Your task to perform on an android device: View the shopping cart on walmart. Add bose quietcomfort 35 to the cart on walmart, then select checkout. Image 0: 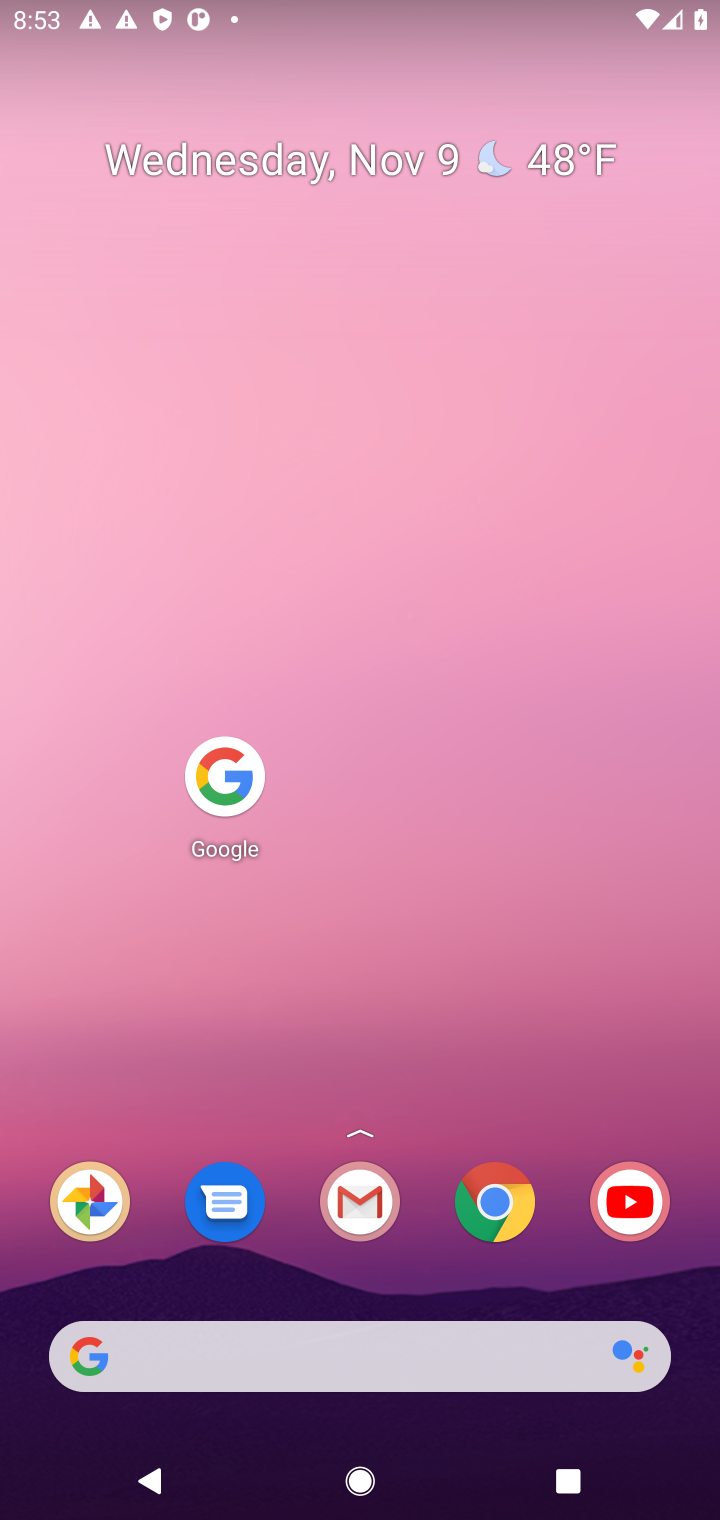
Step 0: click (229, 775)
Your task to perform on an android device: View the shopping cart on walmart. Add bose quietcomfort 35 to the cart on walmart, then select checkout. Image 1: 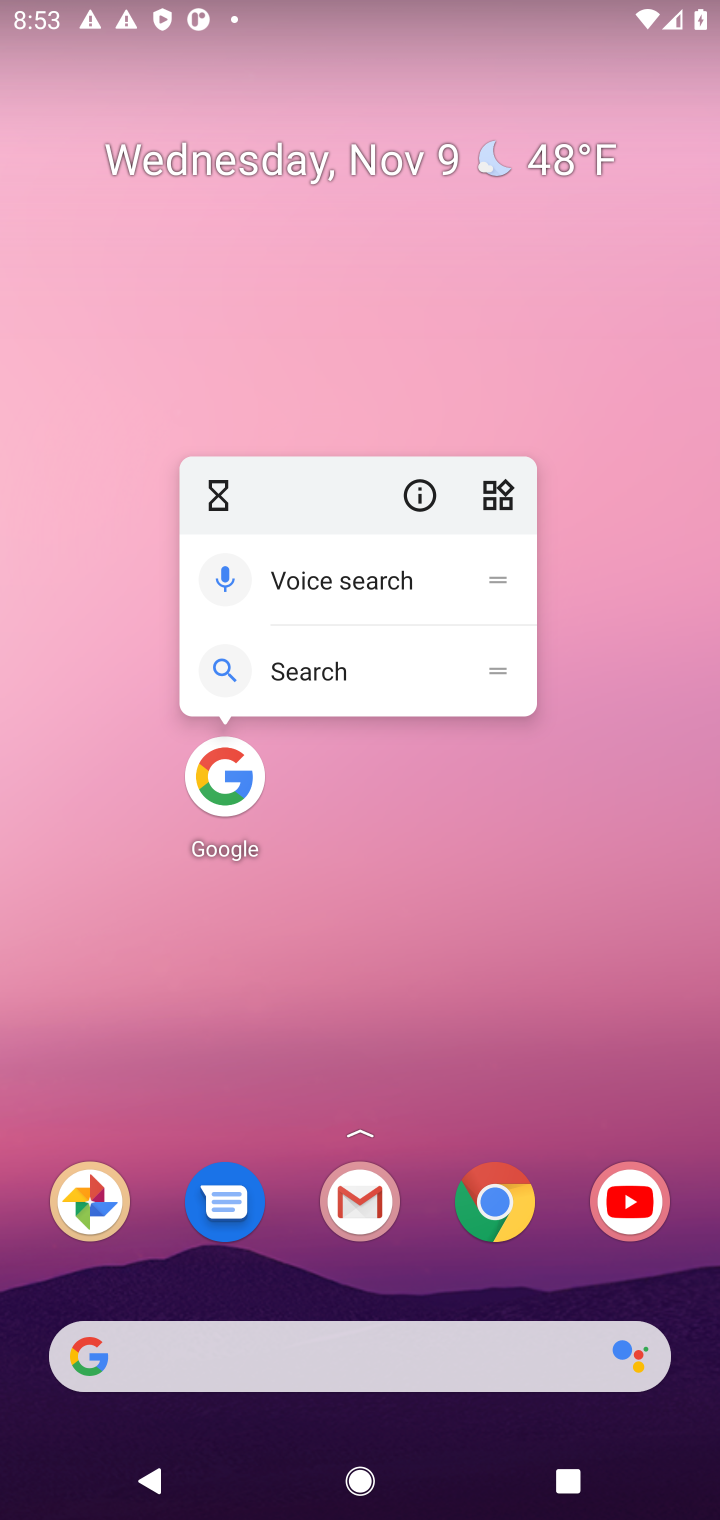
Step 1: click (231, 771)
Your task to perform on an android device: View the shopping cart on walmart. Add bose quietcomfort 35 to the cart on walmart, then select checkout. Image 2: 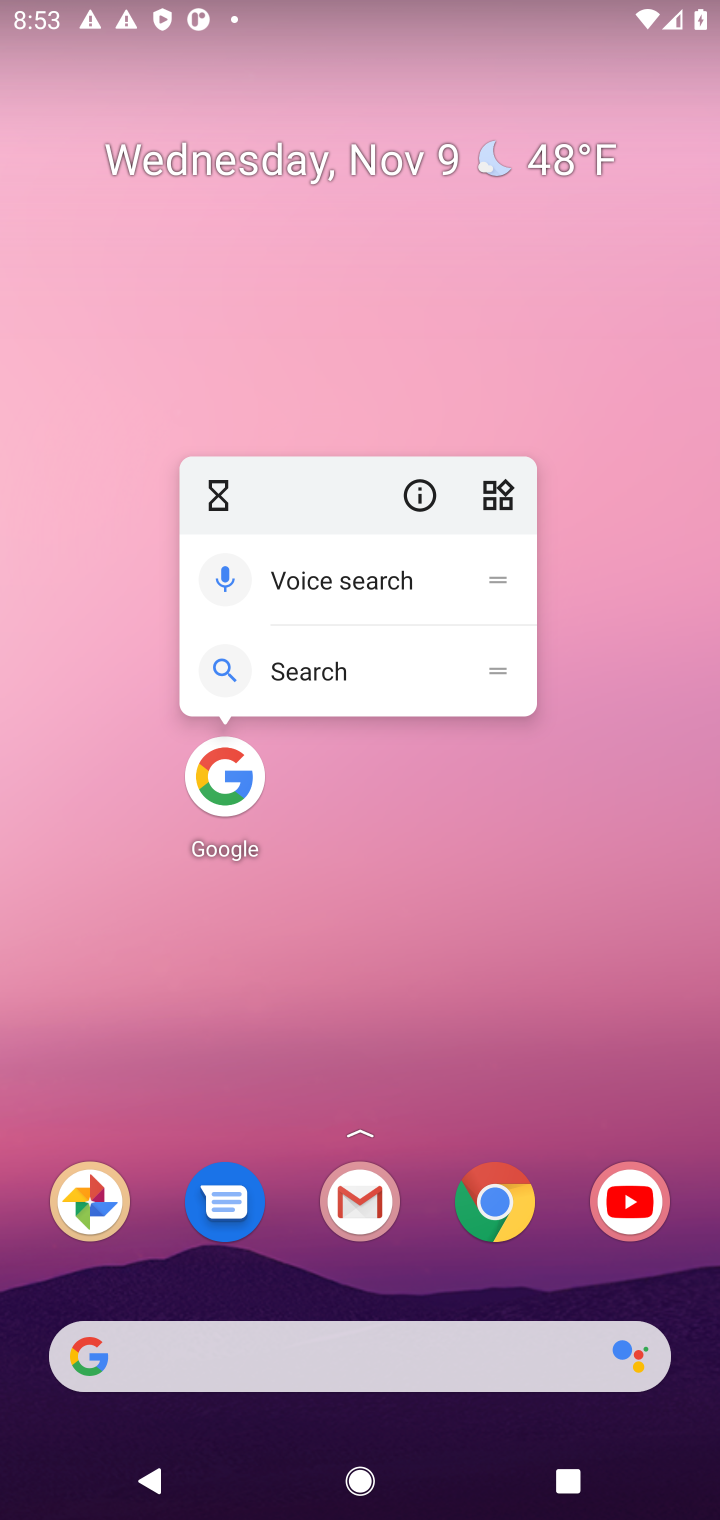
Step 2: click (225, 773)
Your task to perform on an android device: View the shopping cart on walmart. Add bose quietcomfort 35 to the cart on walmart, then select checkout. Image 3: 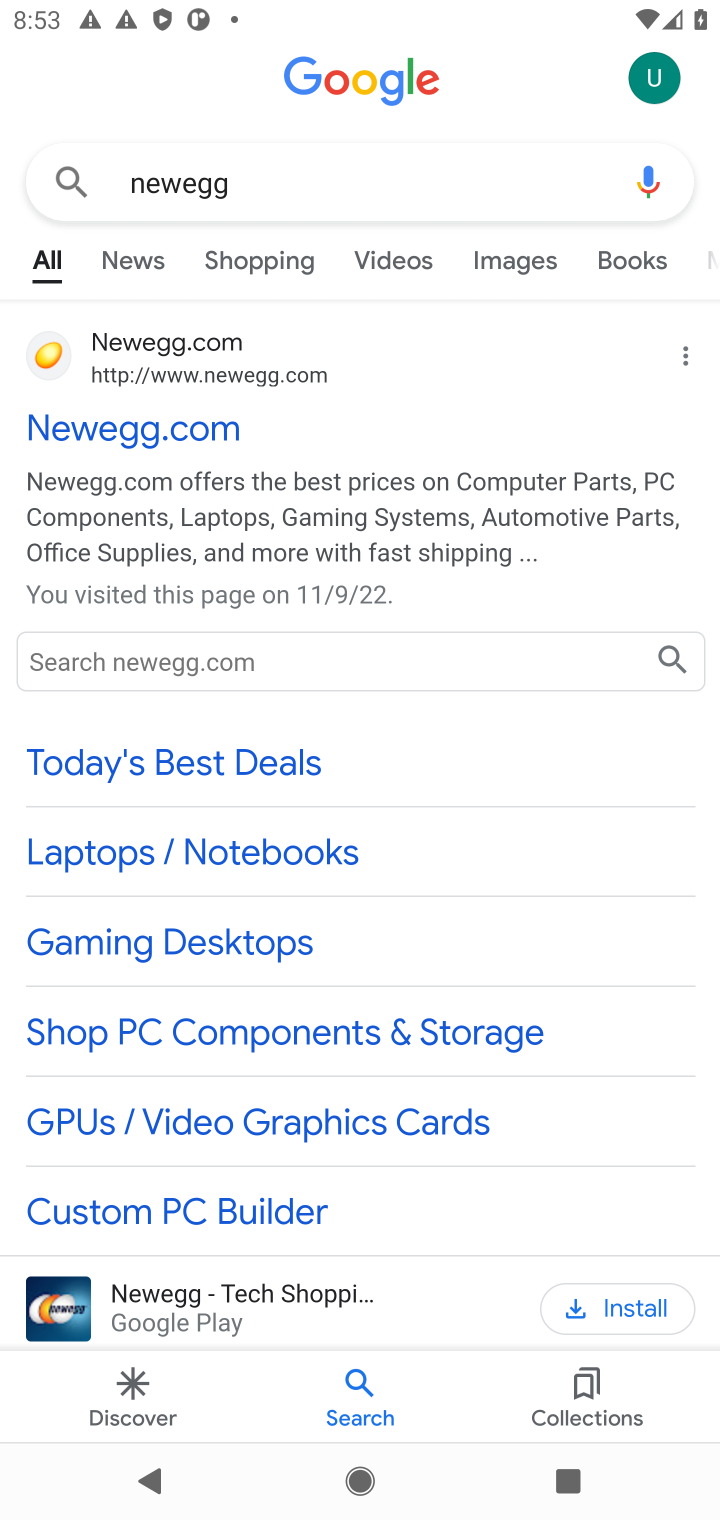
Step 3: click (325, 175)
Your task to perform on an android device: View the shopping cart on walmart. Add bose quietcomfort 35 to the cart on walmart, then select checkout. Image 4: 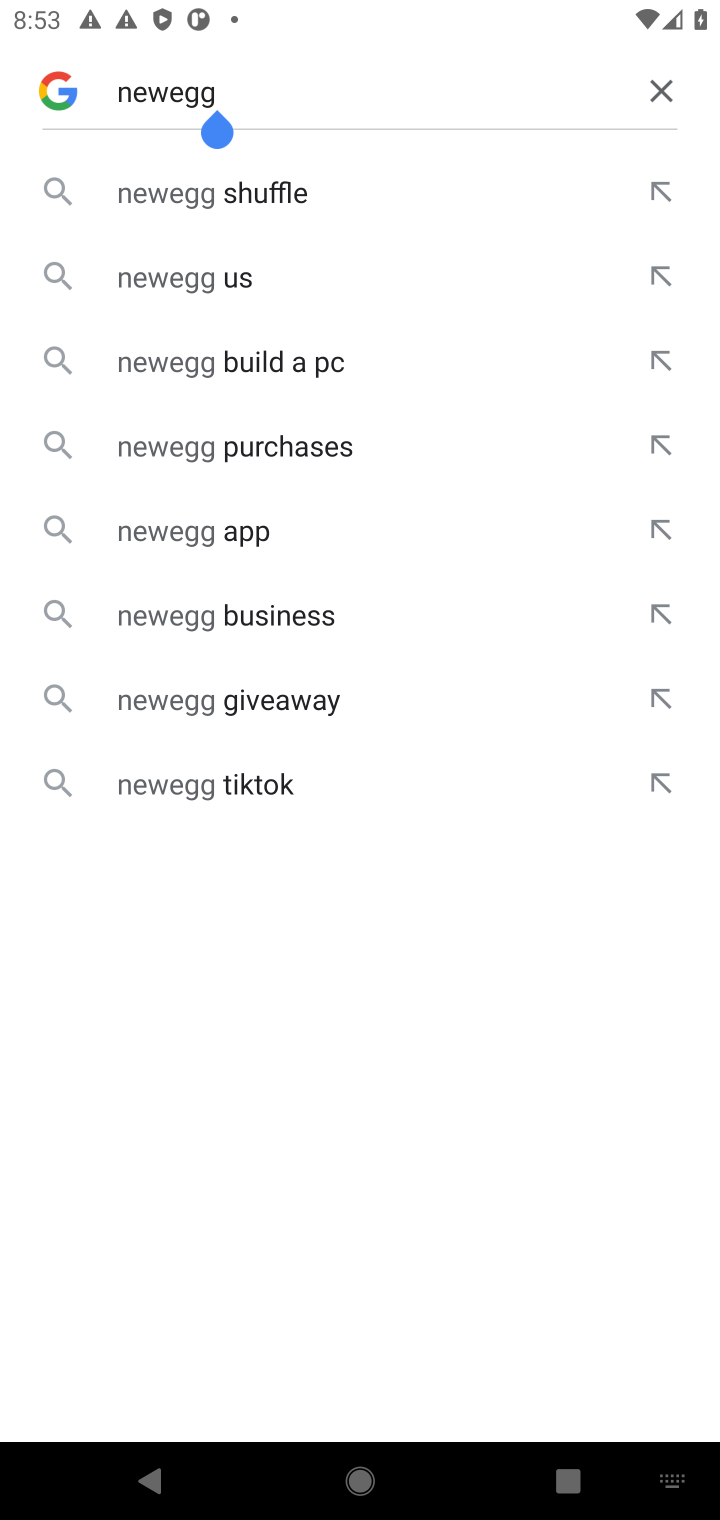
Step 4: click (656, 83)
Your task to perform on an android device: View the shopping cart on walmart. Add bose quietcomfort 35 to the cart on walmart, then select checkout. Image 5: 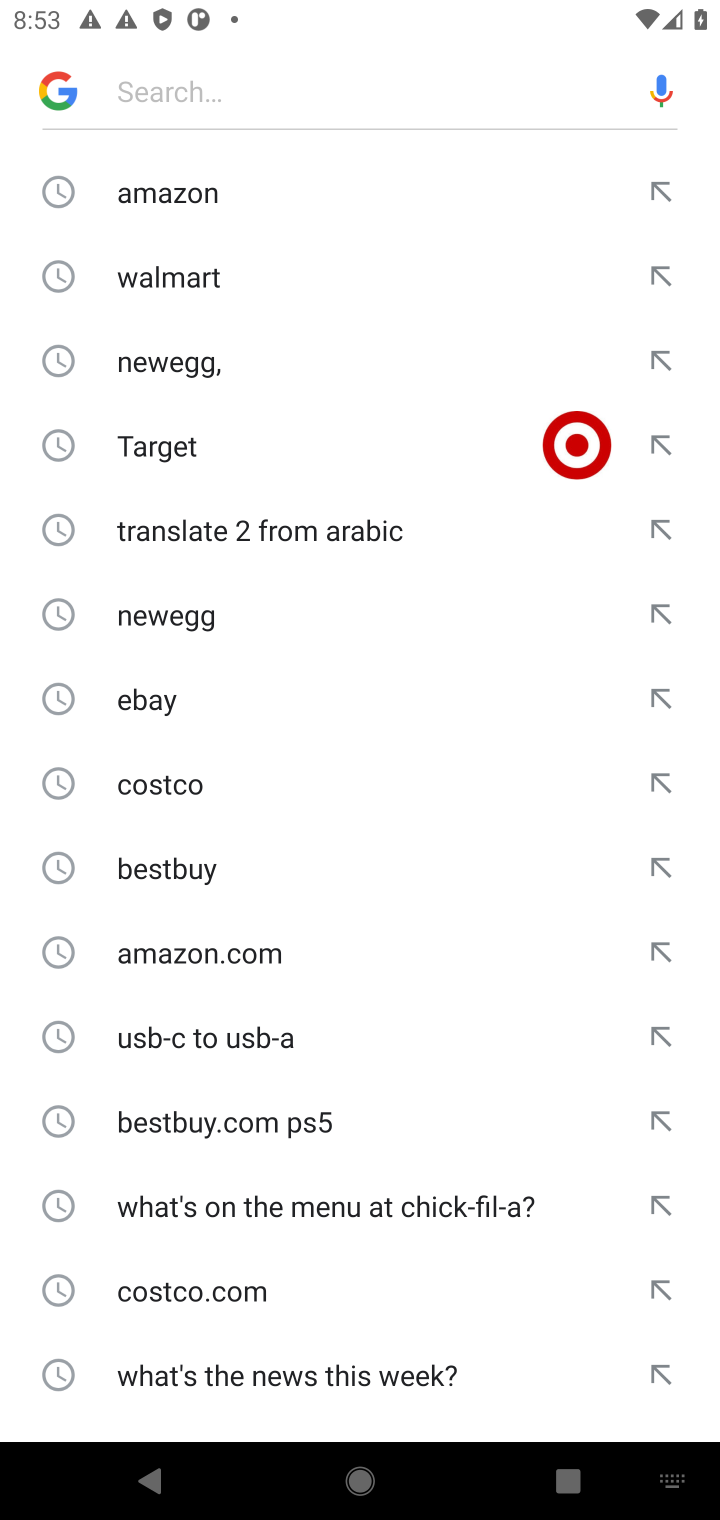
Step 5: click (155, 278)
Your task to perform on an android device: View the shopping cart on walmart. Add bose quietcomfort 35 to the cart on walmart, then select checkout. Image 6: 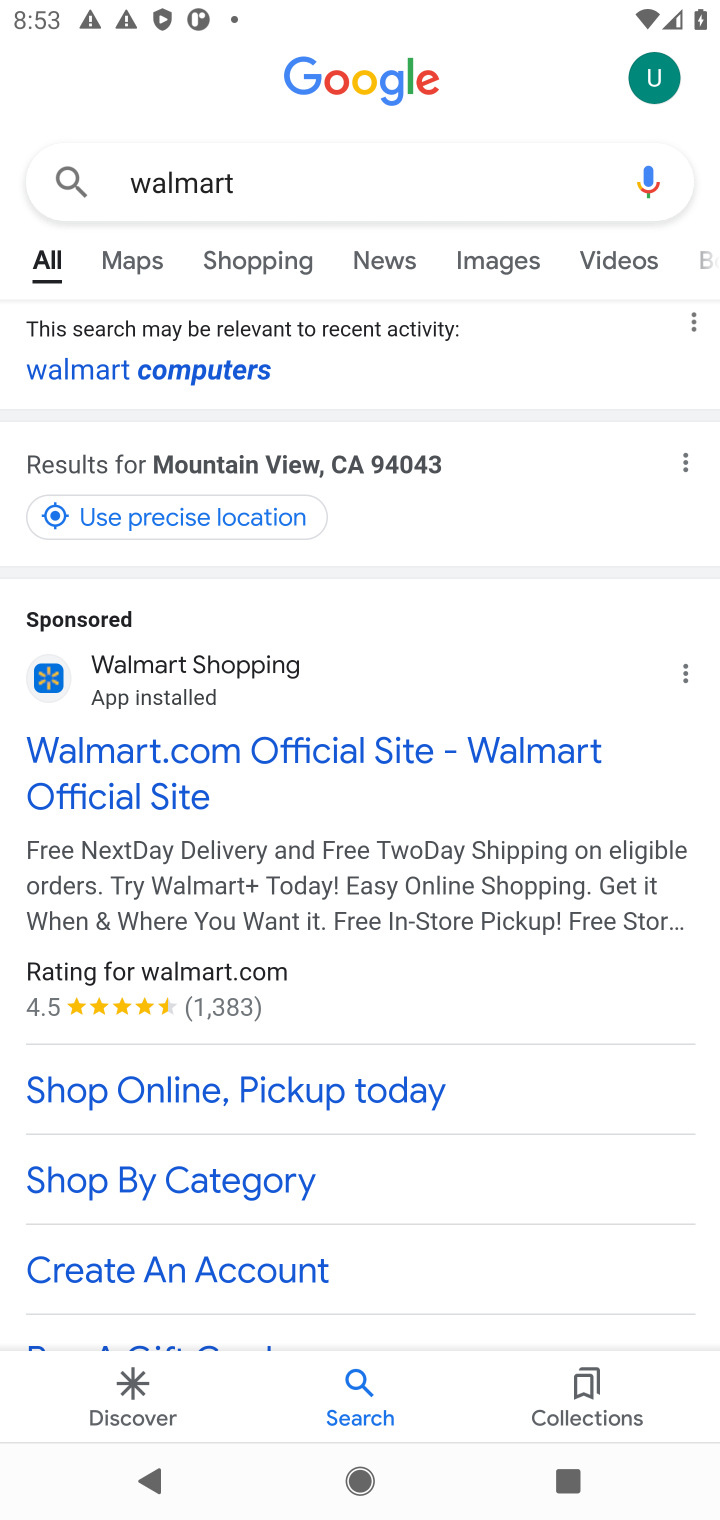
Step 6: drag from (229, 1227) to (493, 450)
Your task to perform on an android device: View the shopping cart on walmart. Add bose quietcomfort 35 to the cart on walmart, then select checkout. Image 7: 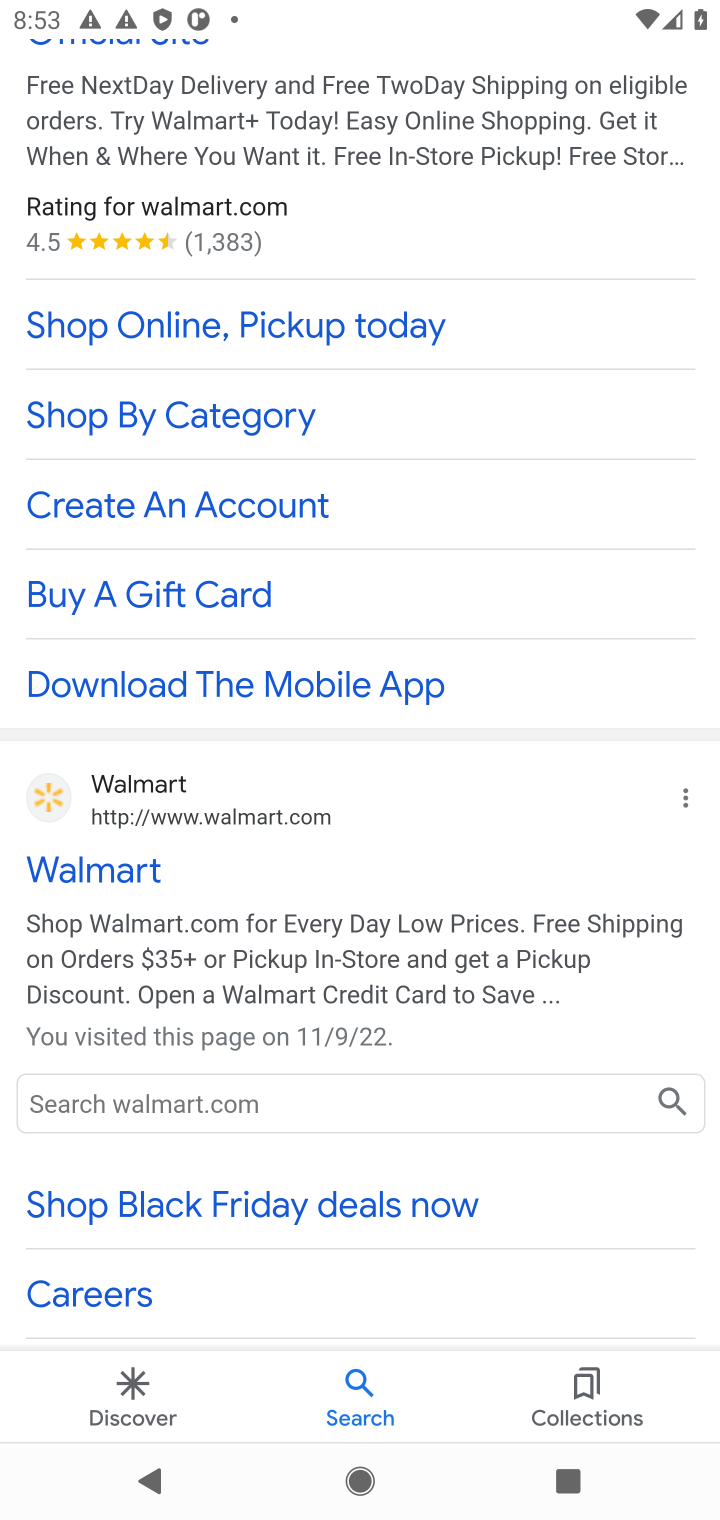
Step 7: click (114, 867)
Your task to perform on an android device: View the shopping cart on walmart. Add bose quietcomfort 35 to the cart on walmart, then select checkout. Image 8: 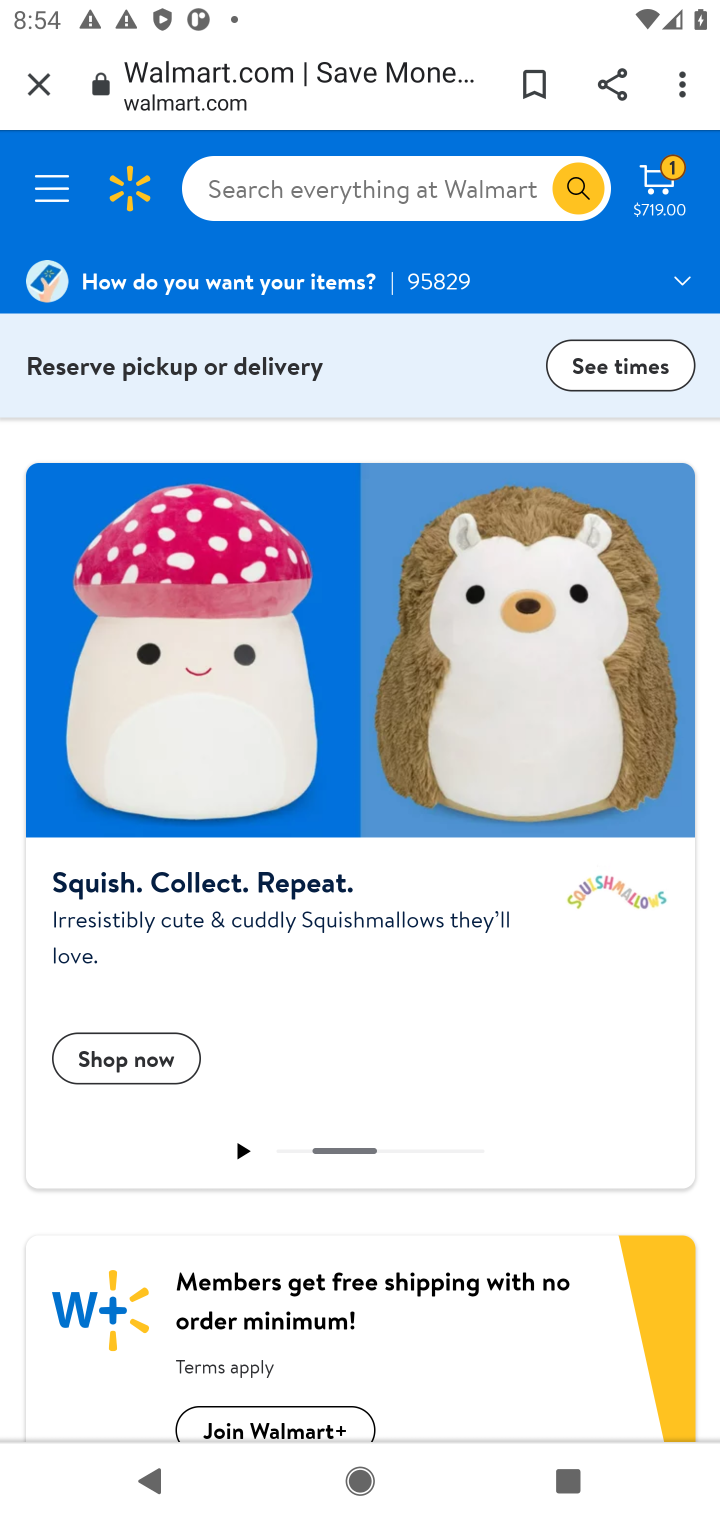
Step 8: click (330, 187)
Your task to perform on an android device: View the shopping cart on walmart. Add bose quietcomfort 35 to the cart on walmart, then select checkout. Image 9: 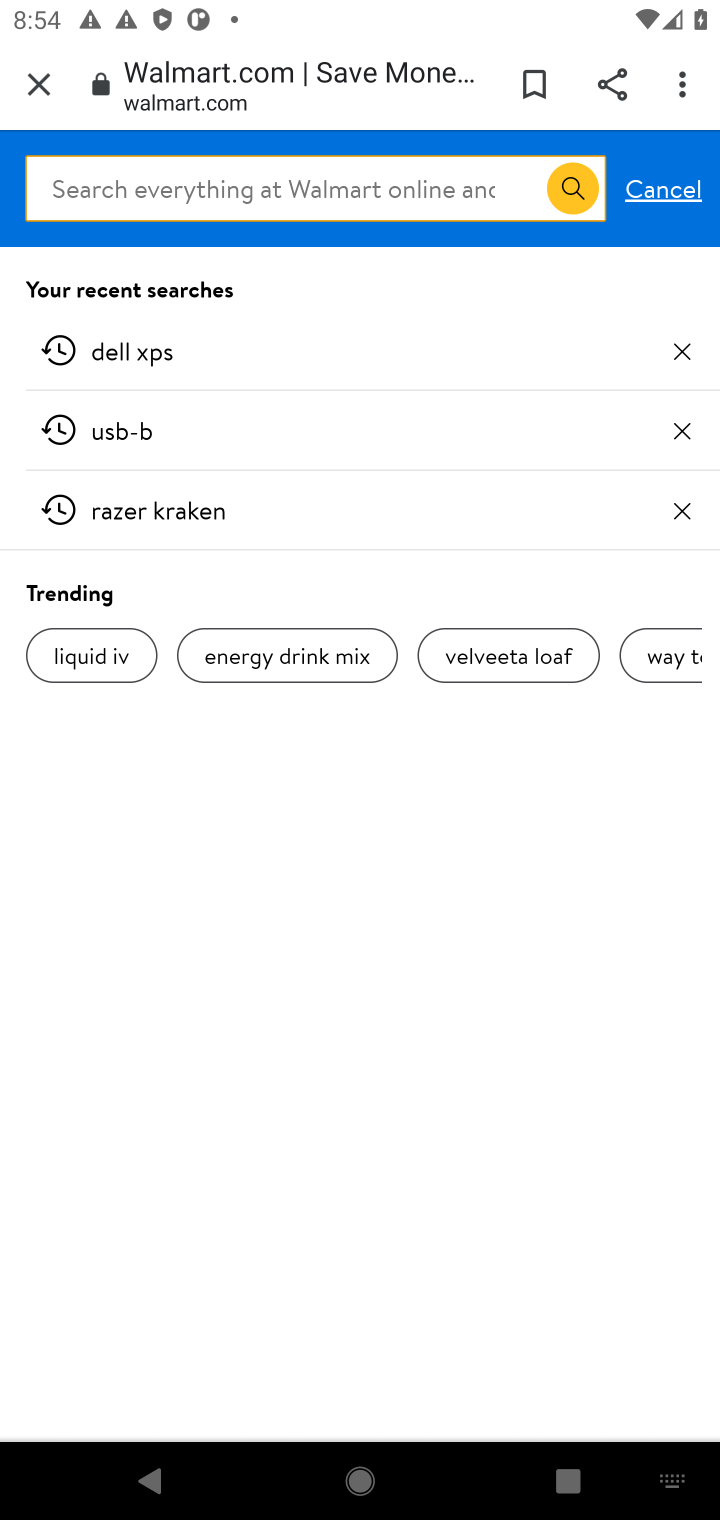
Step 9: type "bose quietcomfort 35"
Your task to perform on an android device: View the shopping cart on walmart. Add bose quietcomfort 35 to the cart on walmart, then select checkout. Image 10: 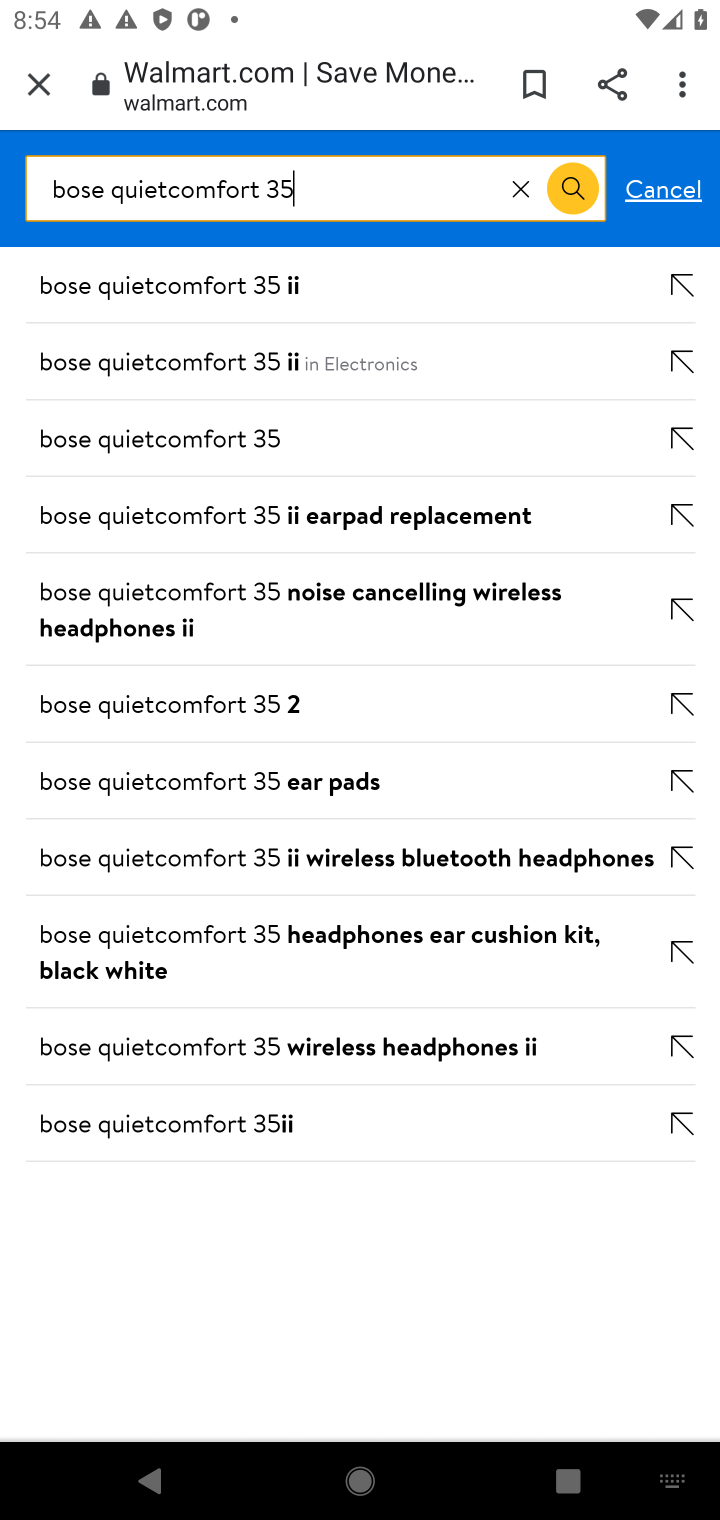
Step 10: press enter
Your task to perform on an android device: View the shopping cart on walmart. Add bose quietcomfort 35 to the cart on walmart, then select checkout. Image 11: 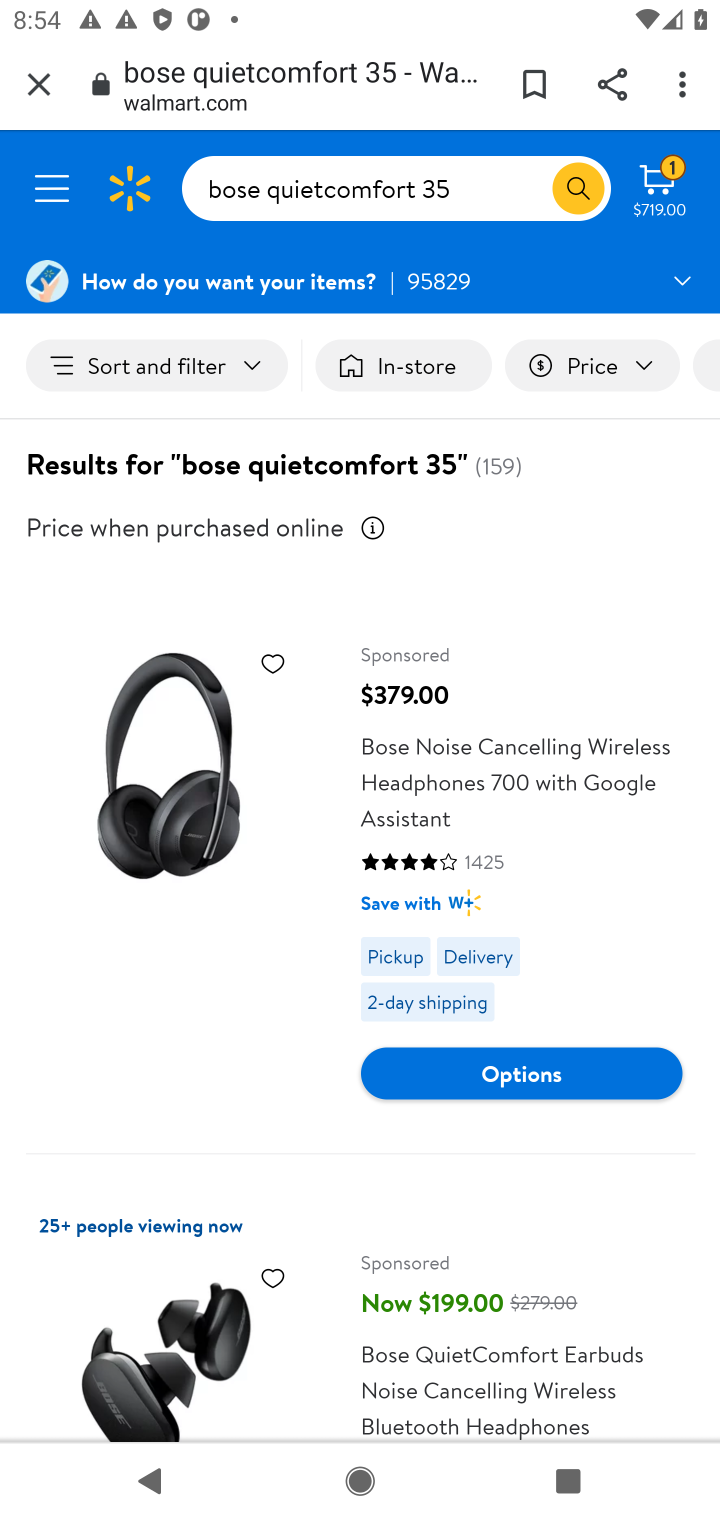
Step 11: task complete